Your task to perform on an android device: Show me popular games on the Play Store Image 0: 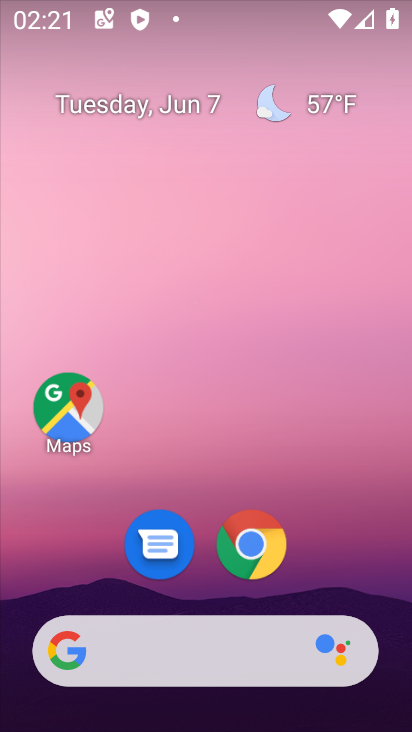
Step 0: drag from (250, 573) to (317, 106)
Your task to perform on an android device: Show me popular games on the Play Store Image 1: 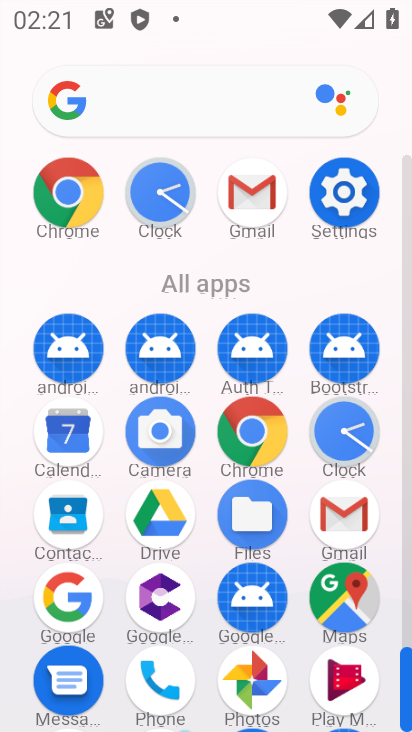
Step 1: drag from (218, 603) to (227, 379)
Your task to perform on an android device: Show me popular games on the Play Store Image 2: 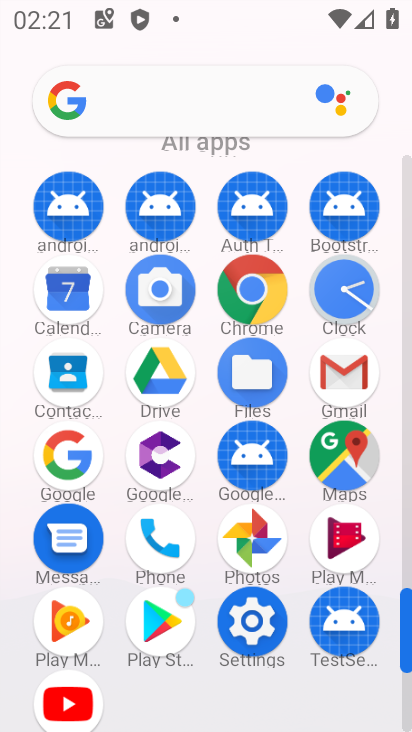
Step 2: click (156, 624)
Your task to perform on an android device: Show me popular games on the Play Store Image 3: 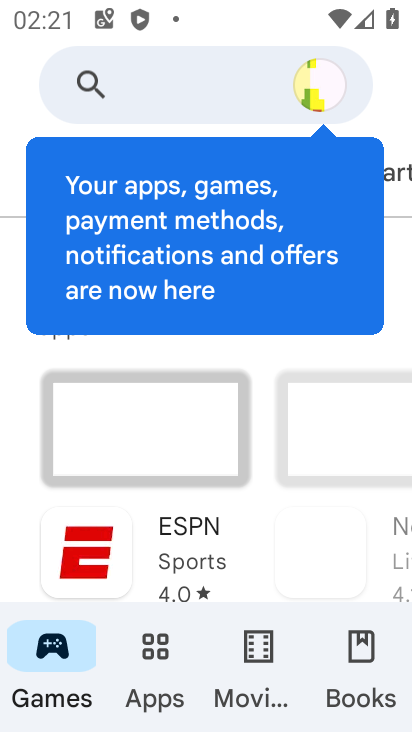
Step 3: click (44, 653)
Your task to perform on an android device: Show me popular games on the Play Store Image 4: 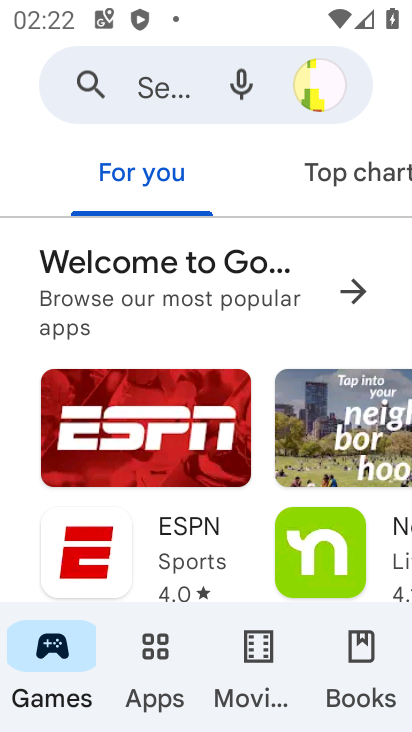
Step 4: task complete